Your task to perform on an android device: open app "Cash App" (install if not already installed) Image 0: 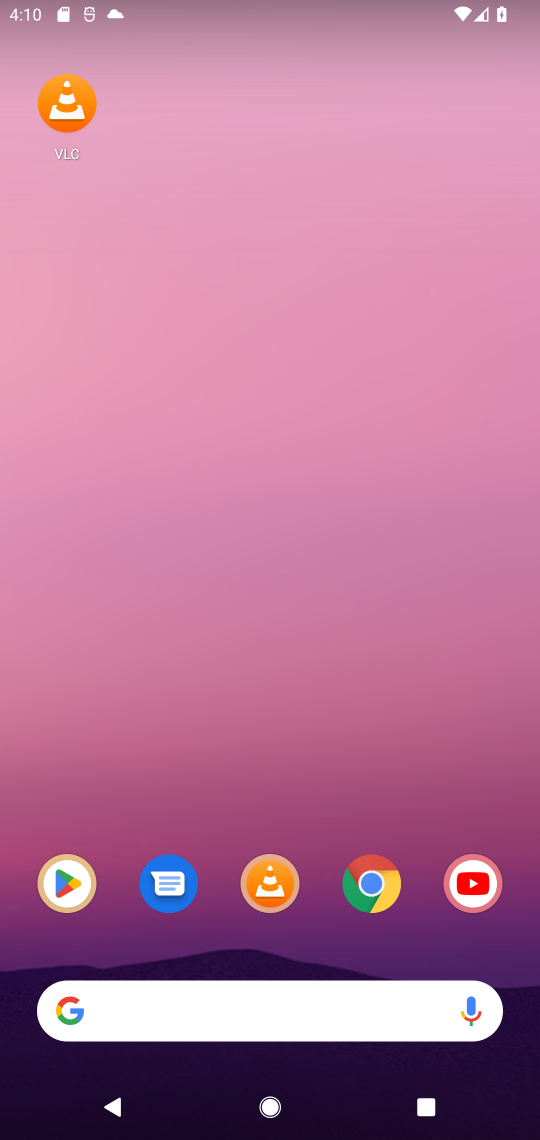
Step 0: drag from (292, 966) to (278, 14)
Your task to perform on an android device: open app "Cash App" (install if not already installed) Image 1: 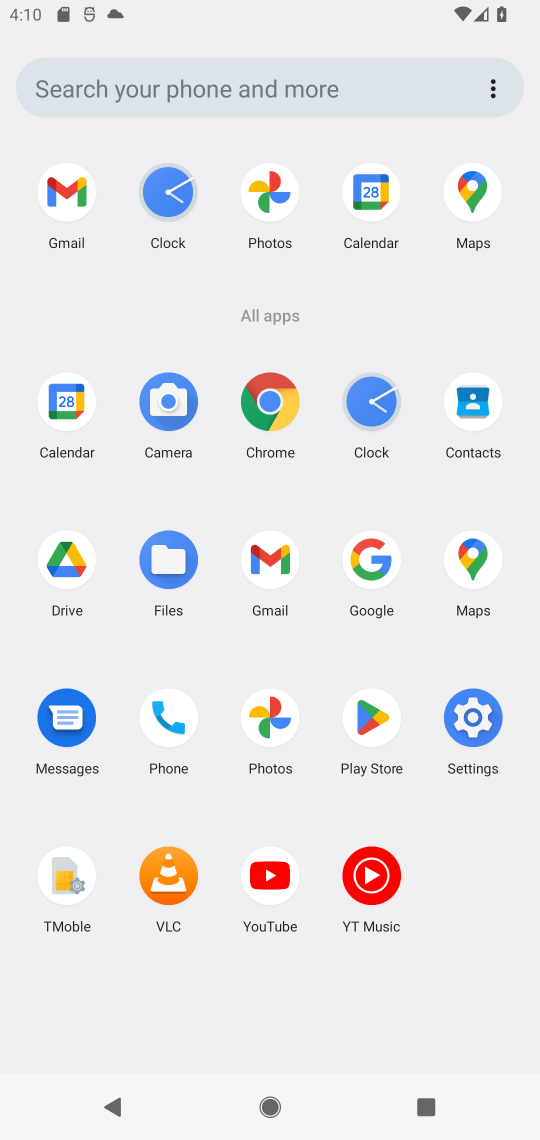
Step 1: click (345, 723)
Your task to perform on an android device: open app "Cash App" (install if not already installed) Image 2: 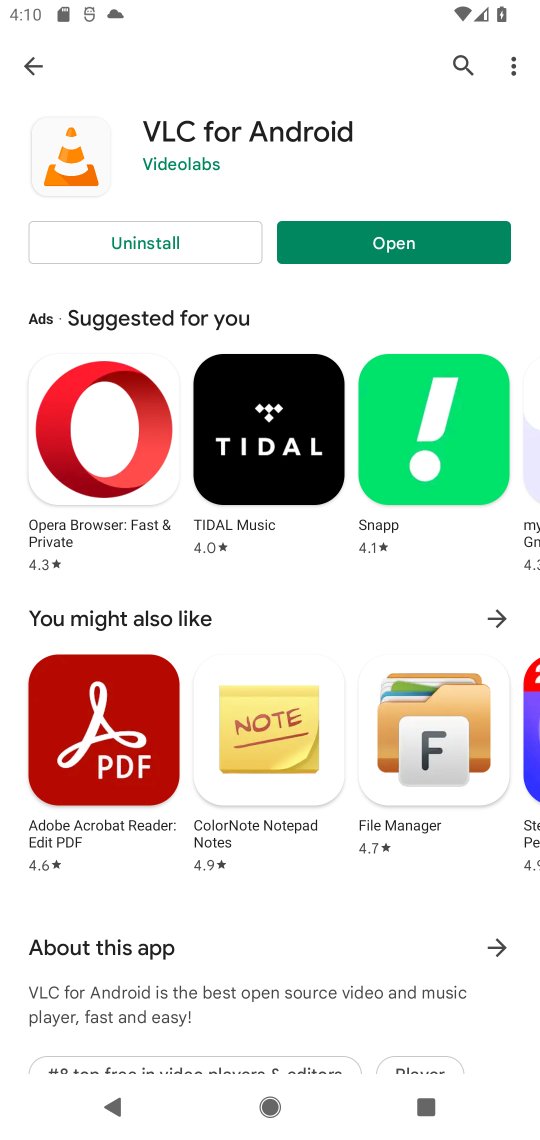
Step 2: click (29, 68)
Your task to perform on an android device: open app "Cash App" (install if not already installed) Image 3: 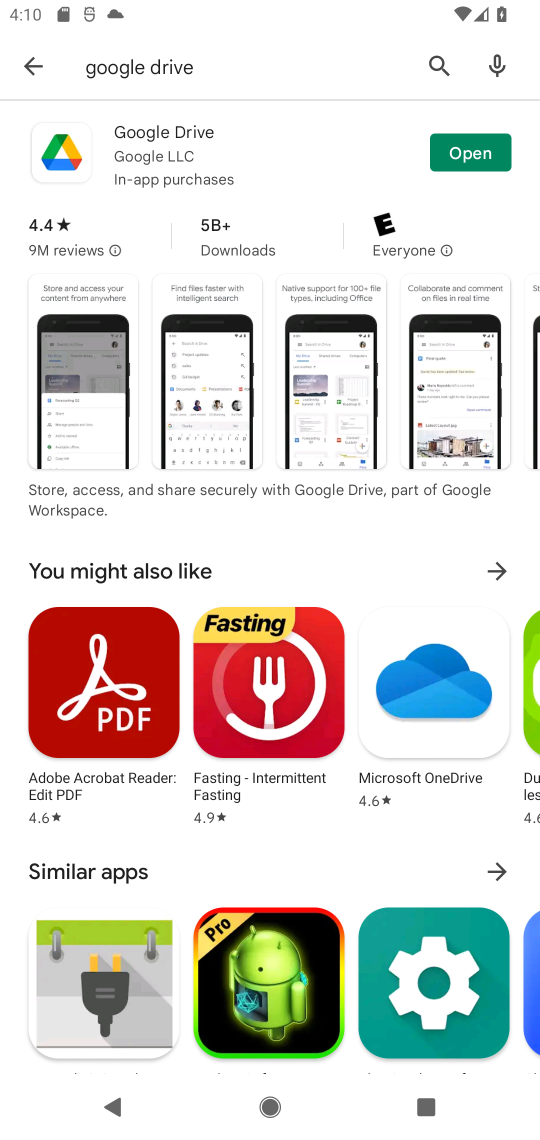
Step 3: click (47, 67)
Your task to perform on an android device: open app "Cash App" (install if not already installed) Image 4: 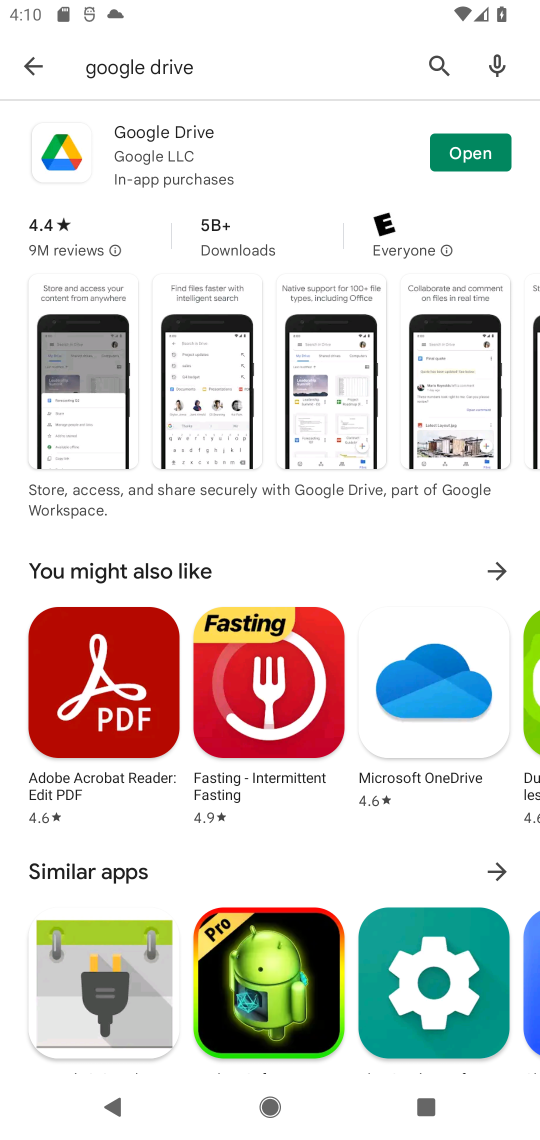
Step 4: click (430, 55)
Your task to perform on an android device: open app "Cash App" (install if not already installed) Image 5: 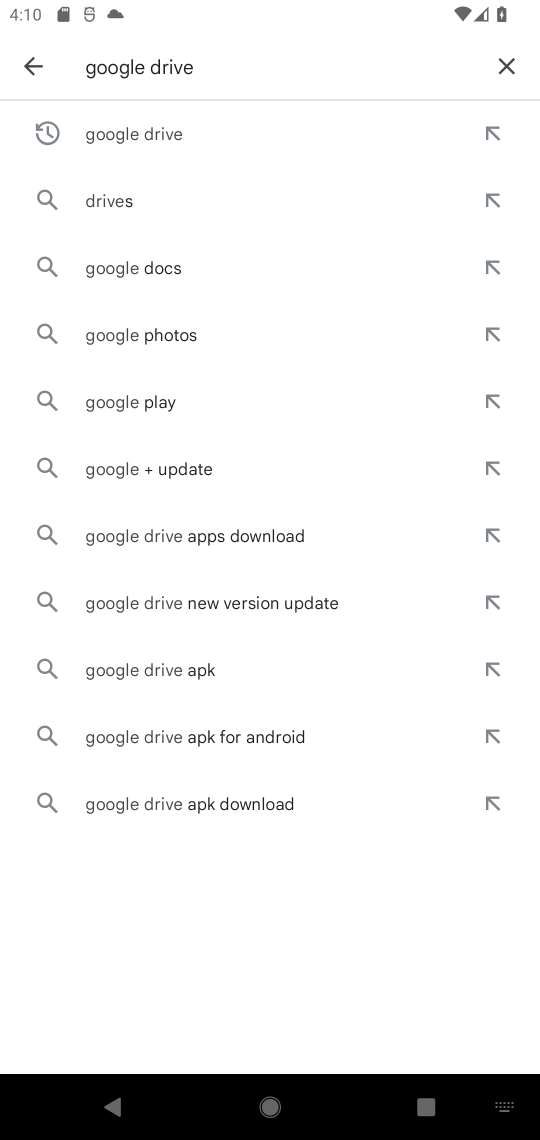
Step 5: click (499, 51)
Your task to perform on an android device: open app "Cash App" (install if not already installed) Image 6: 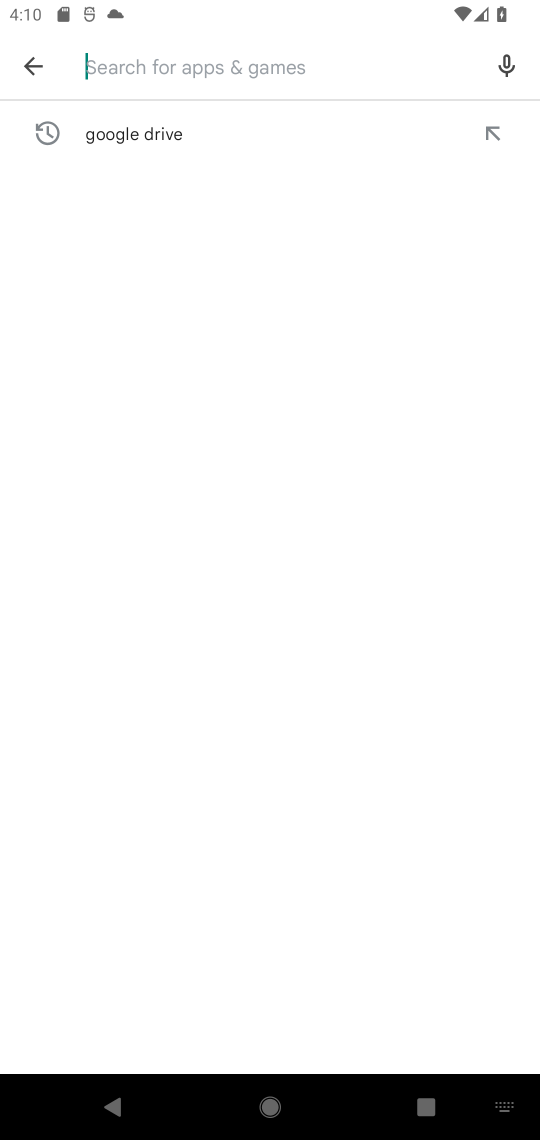
Step 6: type "Cash App"
Your task to perform on an android device: open app "Cash App" (install if not already installed) Image 7: 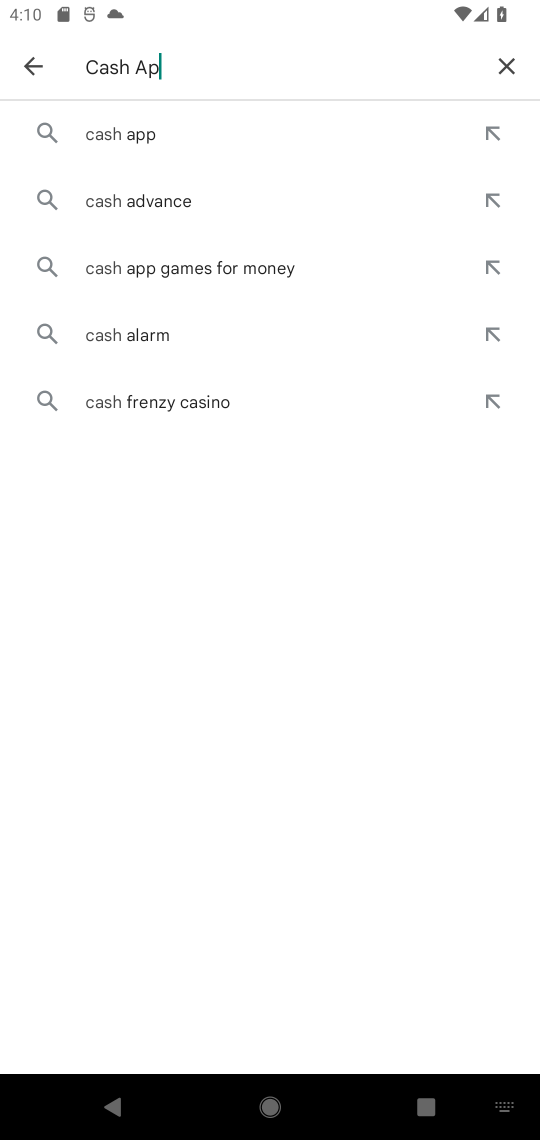
Step 7: type ""
Your task to perform on an android device: open app "Cash App" (install if not already installed) Image 8: 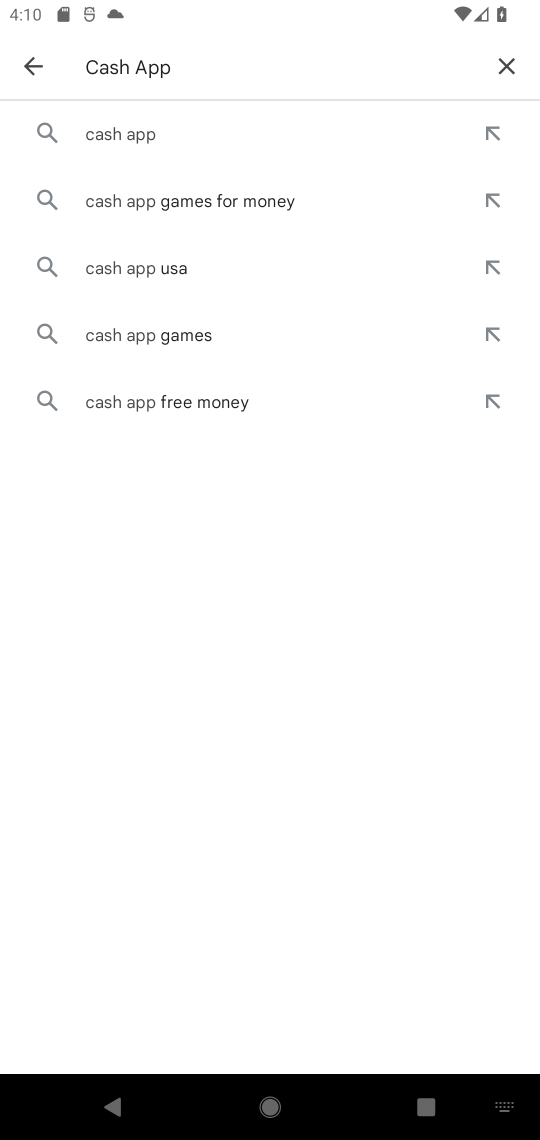
Step 8: click (196, 139)
Your task to perform on an android device: open app "Cash App" (install if not already installed) Image 9: 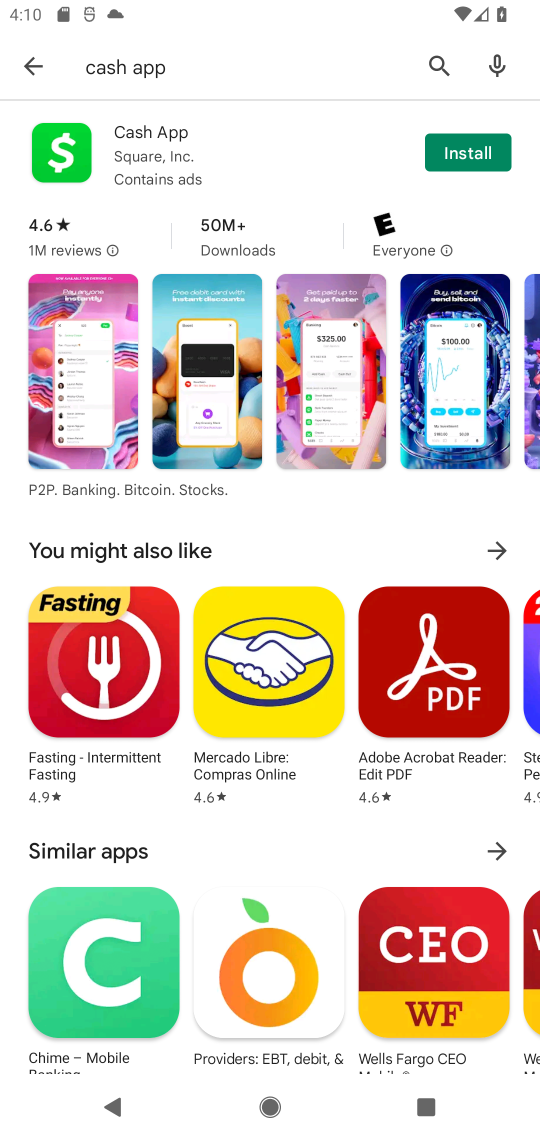
Step 9: click (452, 155)
Your task to perform on an android device: open app "Cash App" (install if not already installed) Image 10: 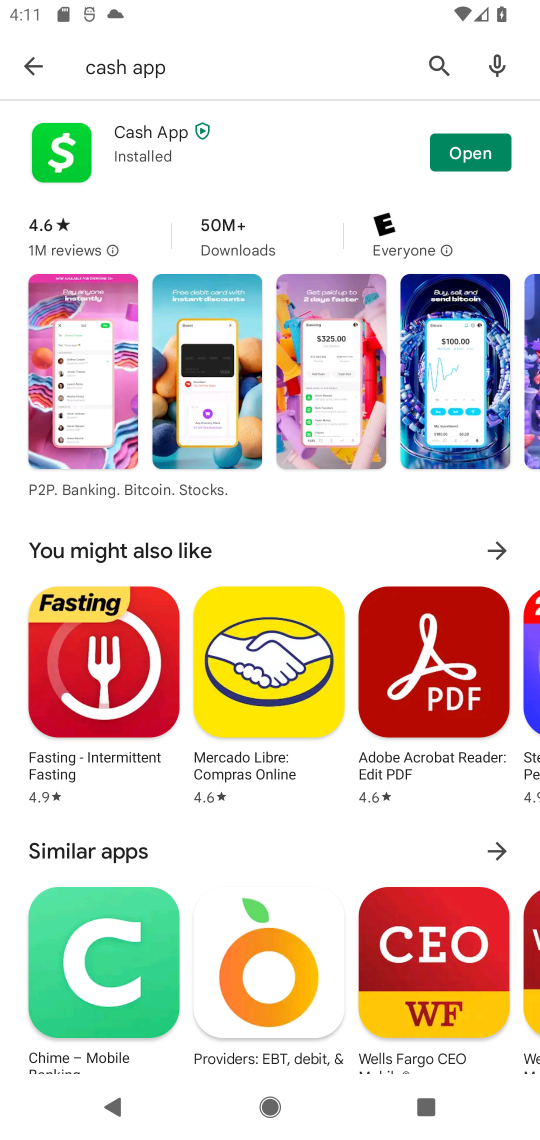
Step 10: click (470, 144)
Your task to perform on an android device: open app "Cash App" (install if not already installed) Image 11: 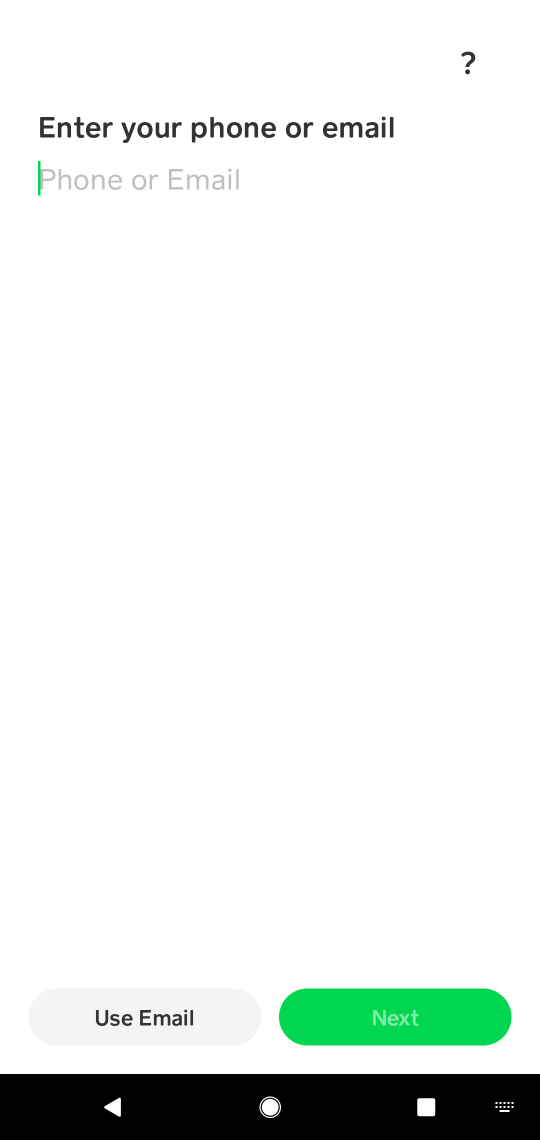
Step 11: task complete